Your task to perform on an android device: turn off notifications settings in the gmail app Image 0: 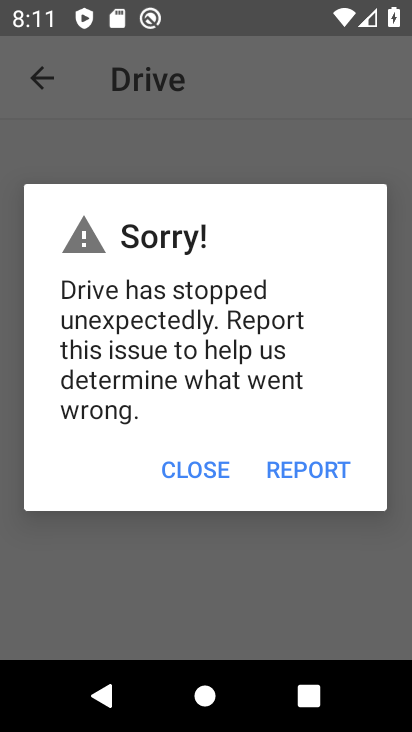
Step 0: press home button
Your task to perform on an android device: turn off notifications settings in the gmail app Image 1: 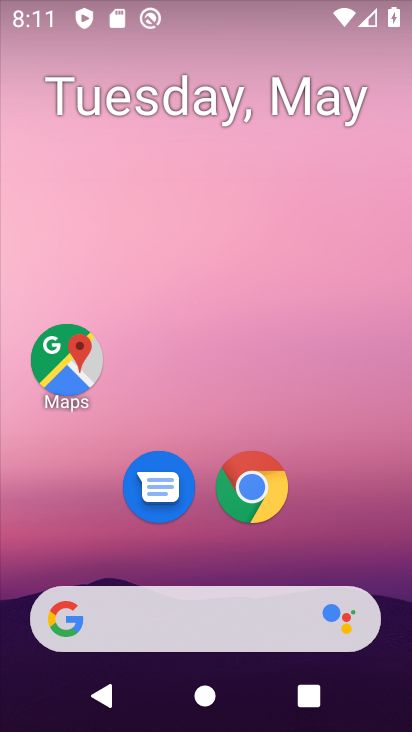
Step 1: drag from (336, 527) to (287, 94)
Your task to perform on an android device: turn off notifications settings in the gmail app Image 2: 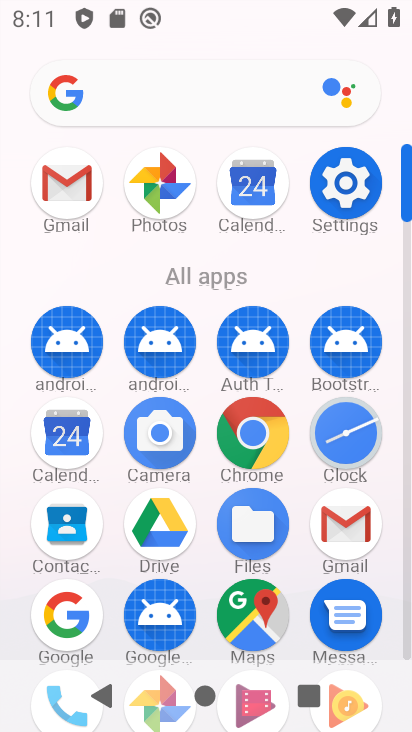
Step 2: click (341, 531)
Your task to perform on an android device: turn off notifications settings in the gmail app Image 3: 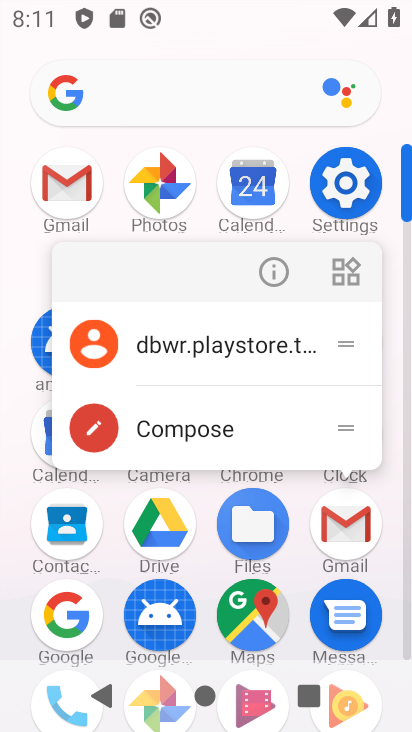
Step 3: click (279, 268)
Your task to perform on an android device: turn off notifications settings in the gmail app Image 4: 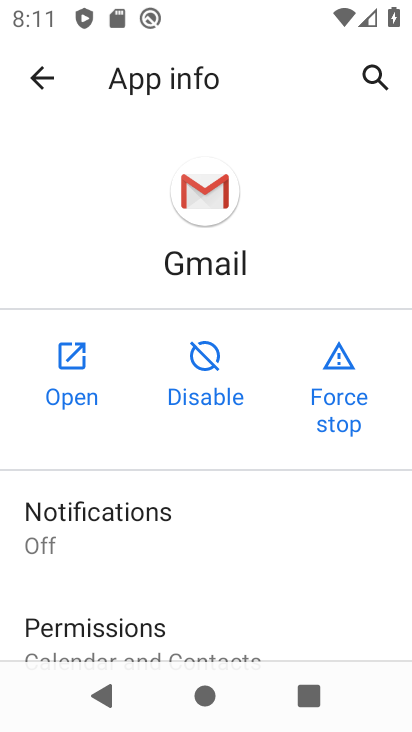
Step 4: click (107, 513)
Your task to perform on an android device: turn off notifications settings in the gmail app Image 5: 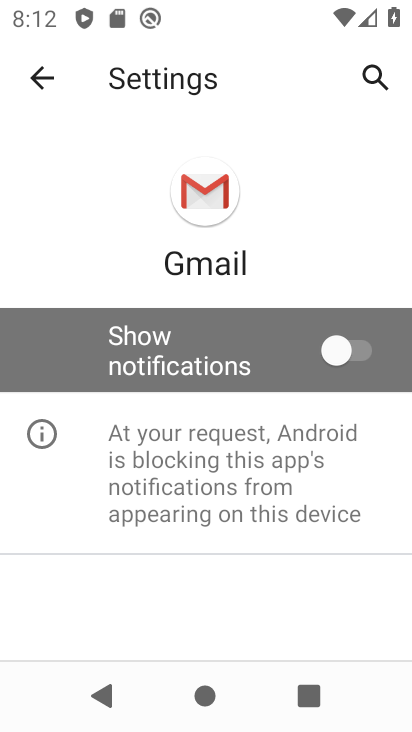
Step 5: task complete